Your task to perform on an android device: change the clock display to show seconds Image 0: 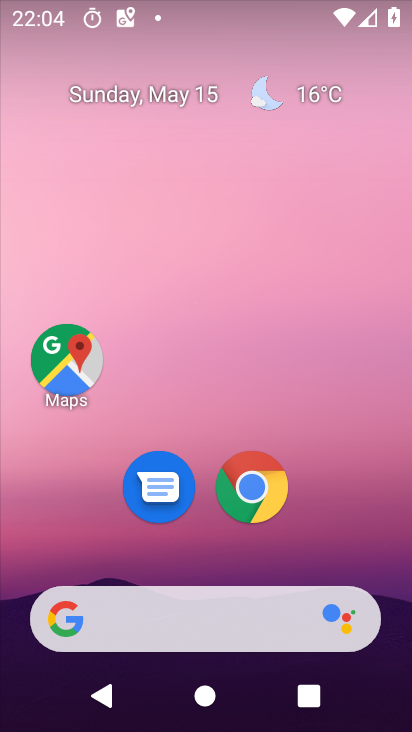
Step 0: click (377, 168)
Your task to perform on an android device: change the clock display to show seconds Image 1: 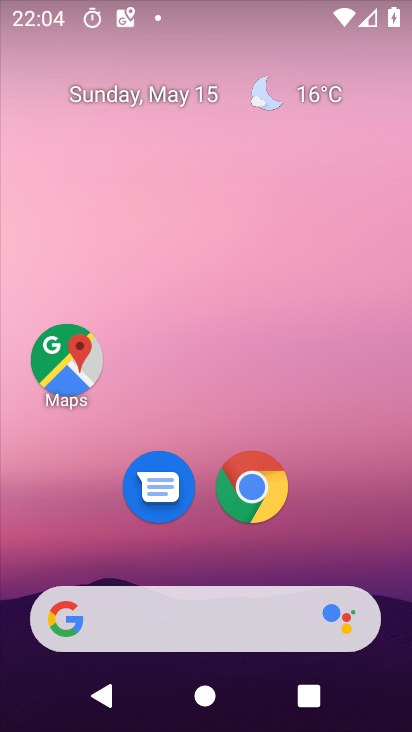
Step 1: drag from (401, 650) to (384, 180)
Your task to perform on an android device: change the clock display to show seconds Image 2: 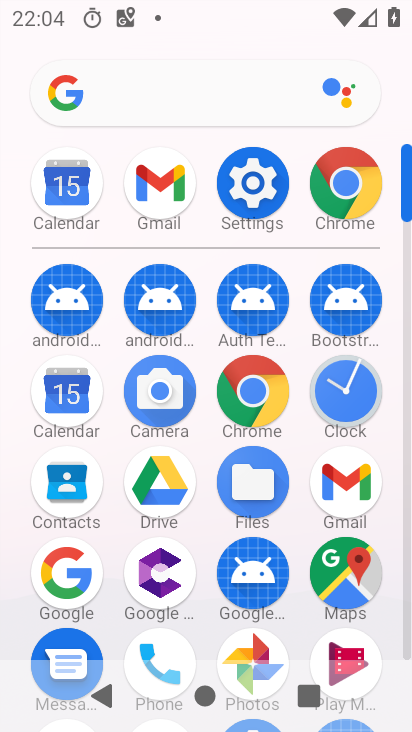
Step 2: click (253, 184)
Your task to perform on an android device: change the clock display to show seconds Image 3: 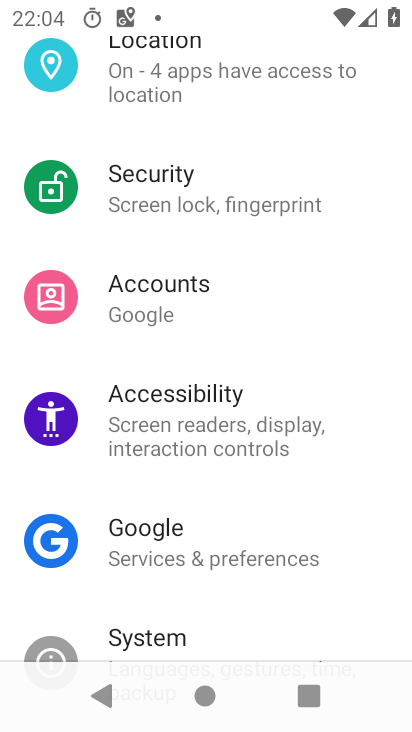
Step 3: press home button
Your task to perform on an android device: change the clock display to show seconds Image 4: 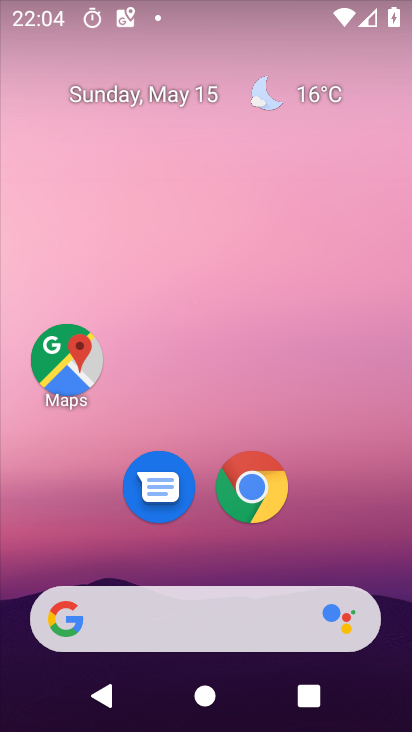
Step 4: drag from (402, 664) to (386, 289)
Your task to perform on an android device: change the clock display to show seconds Image 5: 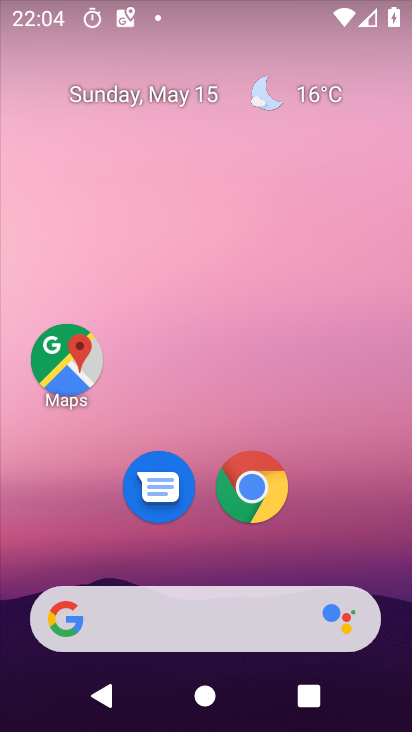
Step 5: drag from (394, 654) to (374, 231)
Your task to perform on an android device: change the clock display to show seconds Image 6: 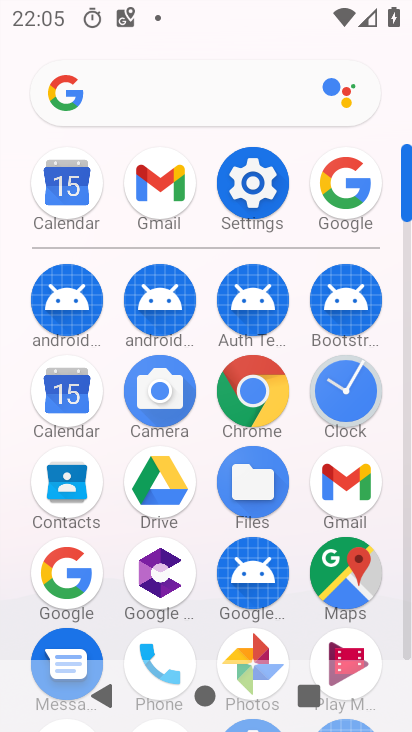
Step 6: click (359, 386)
Your task to perform on an android device: change the clock display to show seconds Image 7: 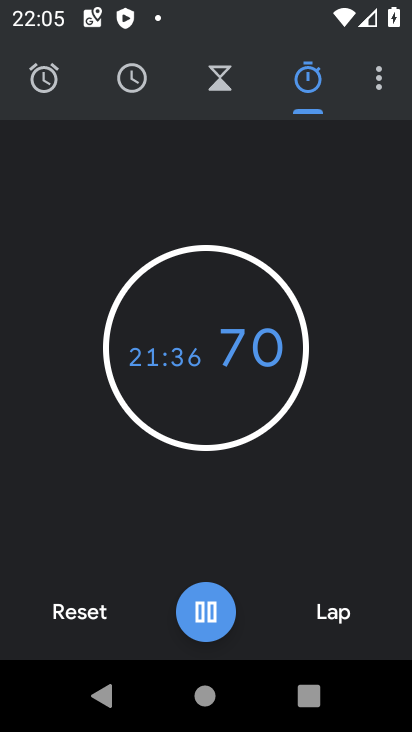
Step 7: click (383, 75)
Your task to perform on an android device: change the clock display to show seconds Image 8: 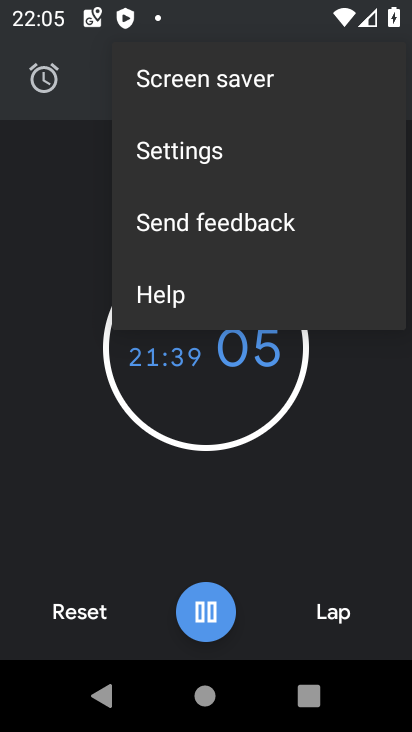
Step 8: click (223, 147)
Your task to perform on an android device: change the clock display to show seconds Image 9: 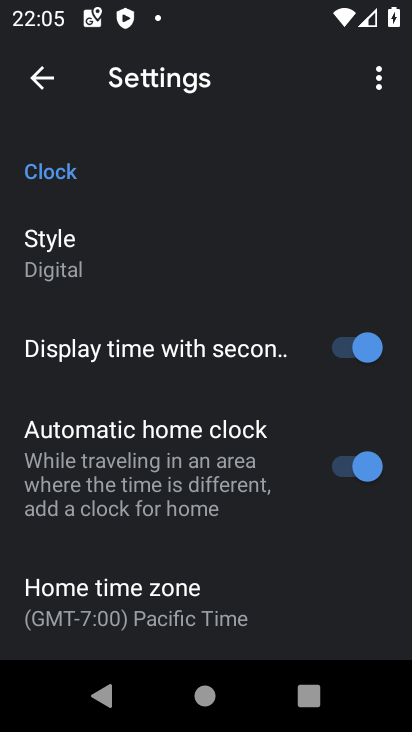
Step 9: task complete